Your task to perform on an android device: Check the weather Image 0: 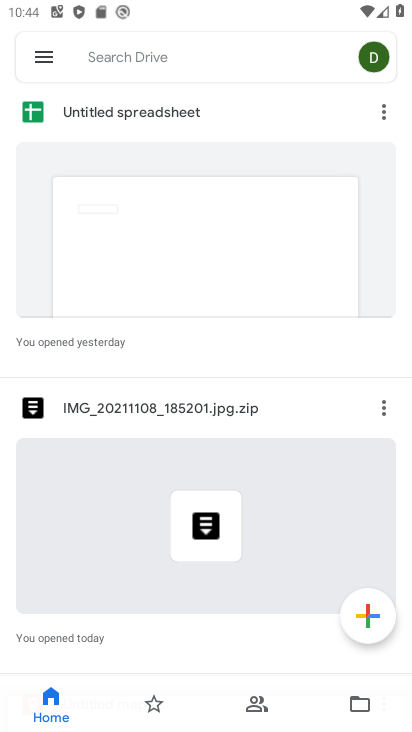
Step 0: press home button
Your task to perform on an android device: Check the weather Image 1: 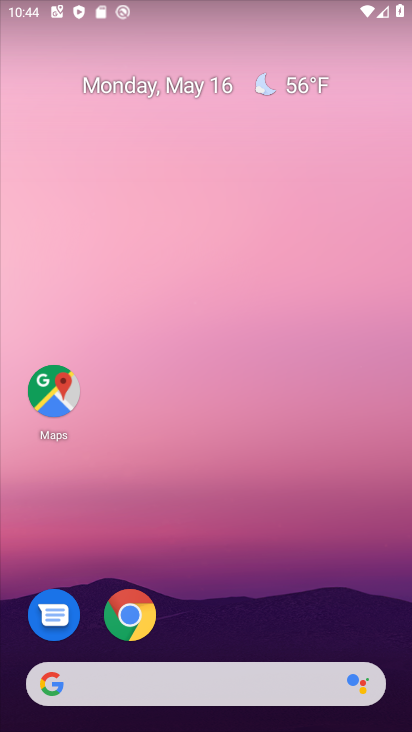
Step 1: drag from (260, 687) to (205, 320)
Your task to perform on an android device: Check the weather Image 2: 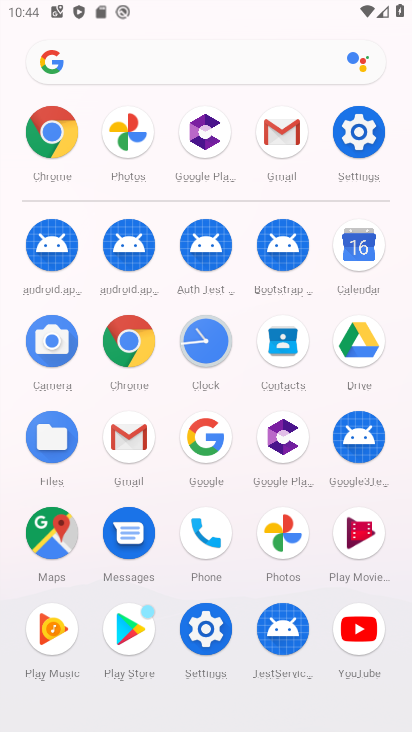
Step 2: click (146, 64)
Your task to perform on an android device: Check the weather Image 3: 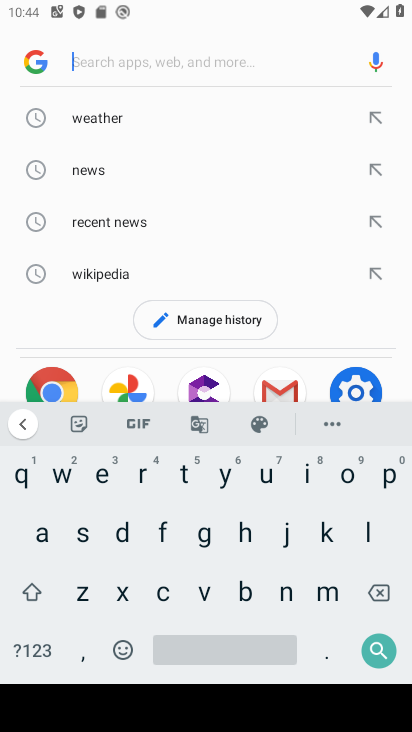
Step 3: click (132, 127)
Your task to perform on an android device: Check the weather Image 4: 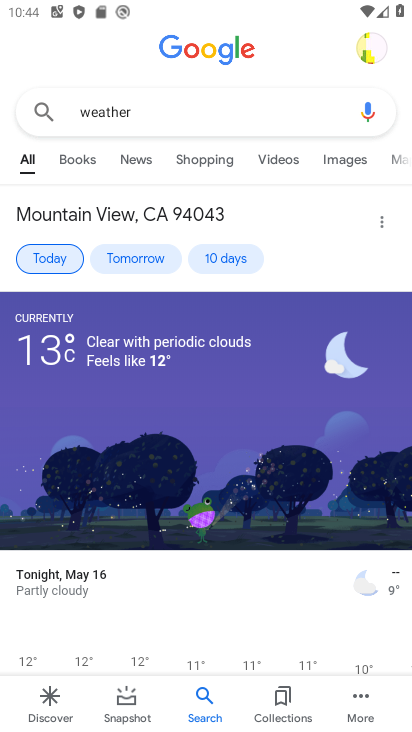
Step 4: task complete